Your task to perform on an android device: open chrome and create a bookmark for the current page Image 0: 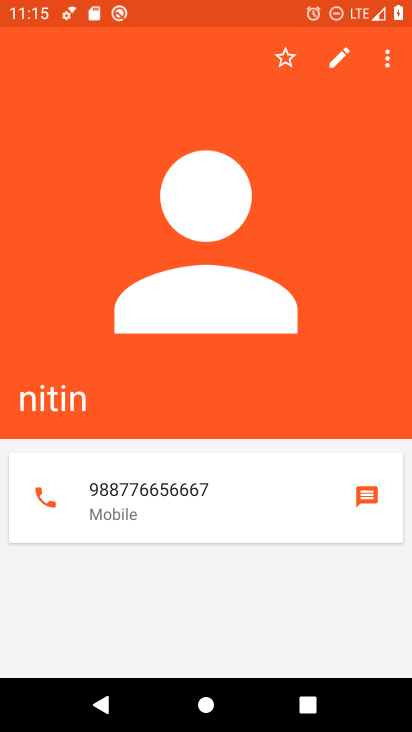
Step 0: press home button
Your task to perform on an android device: open chrome and create a bookmark for the current page Image 1: 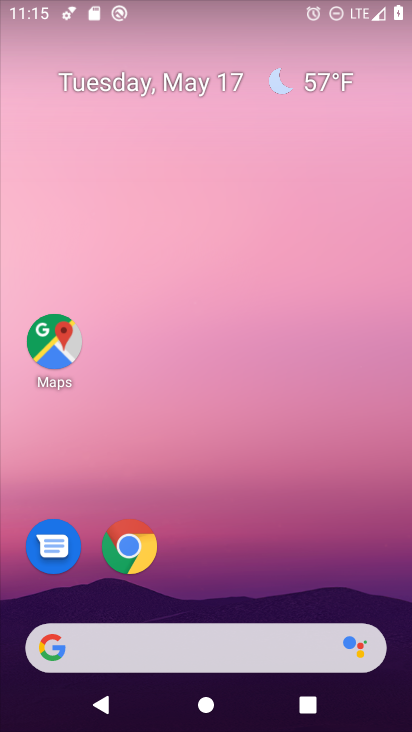
Step 1: click (138, 551)
Your task to perform on an android device: open chrome and create a bookmark for the current page Image 2: 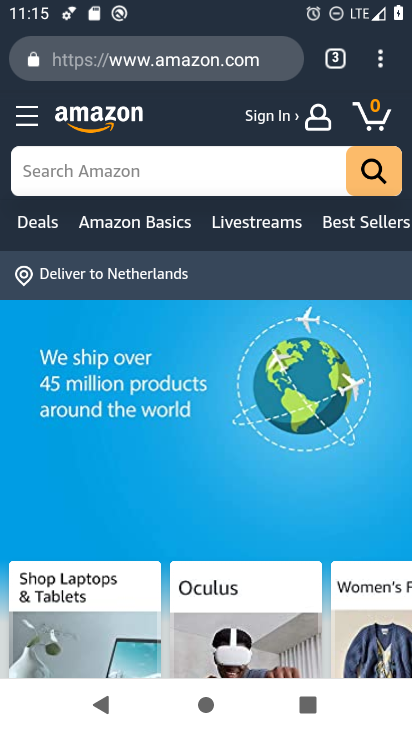
Step 2: click (380, 59)
Your task to perform on an android device: open chrome and create a bookmark for the current page Image 3: 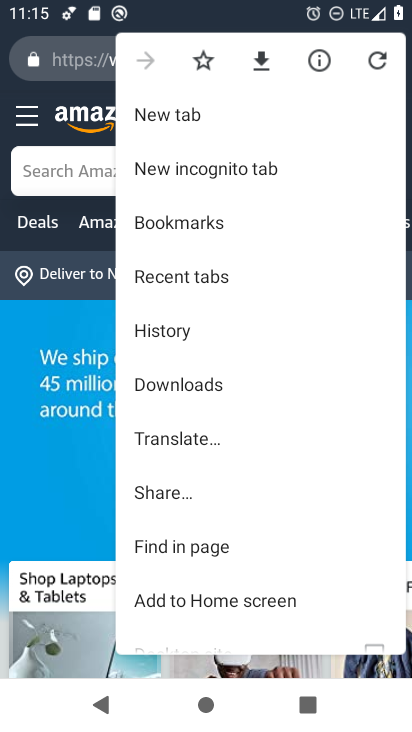
Step 3: click (203, 60)
Your task to perform on an android device: open chrome and create a bookmark for the current page Image 4: 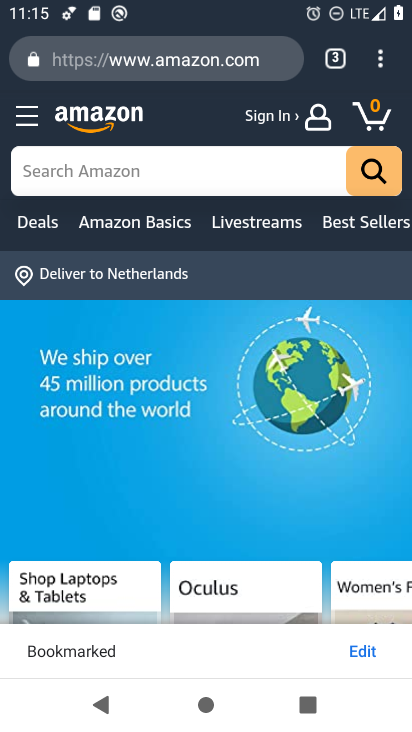
Step 4: task complete